Your task to perform on an android device: Open calendar and show me the second week of next month Image 0: 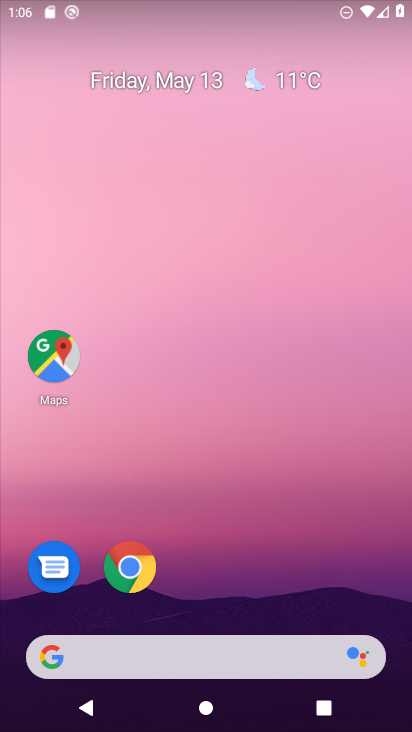
Step 0: drag from (228, 607) to (210, 8)
Your task to perform on an android device: Open calendar and show me the second week of next month Image 1: 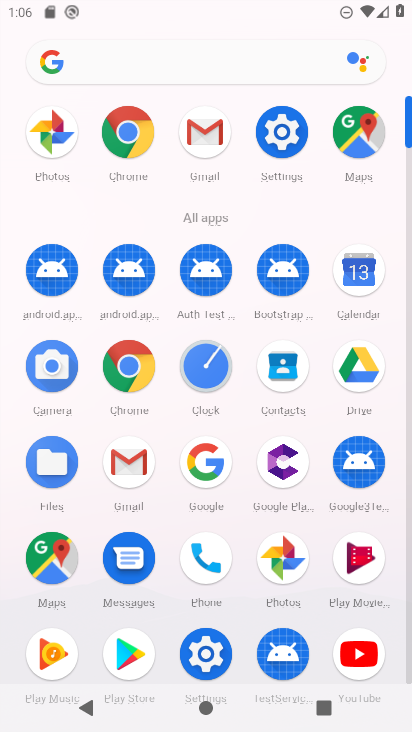
Step 1: click (358, 268)
Your task to perform on an android device: Open calendar and show me the second week of next month Image 2: 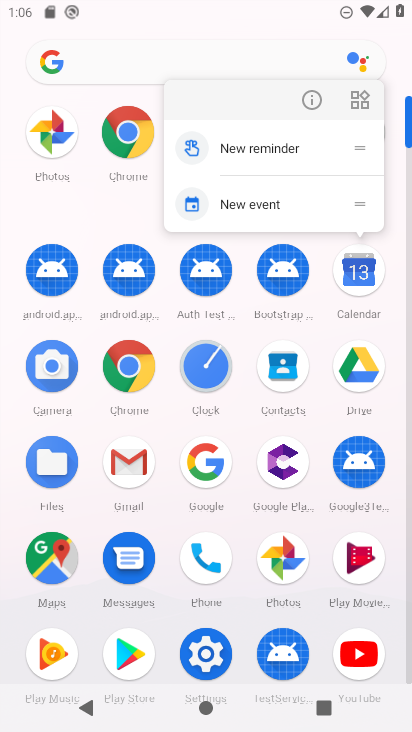
Step 2: click (357, 270)
Your task to perform on an android device: Open calendar and show me the second week of next month Image 3: 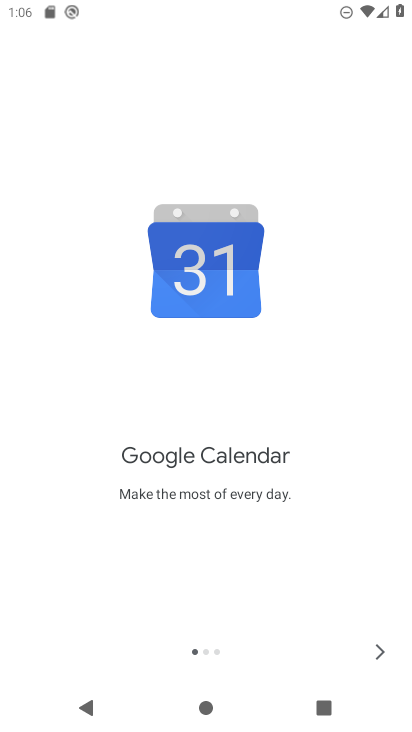
Step 3: click (376, 649)
Your task to perform on an android device: Open calendar and show me the second week of next month Image 4: 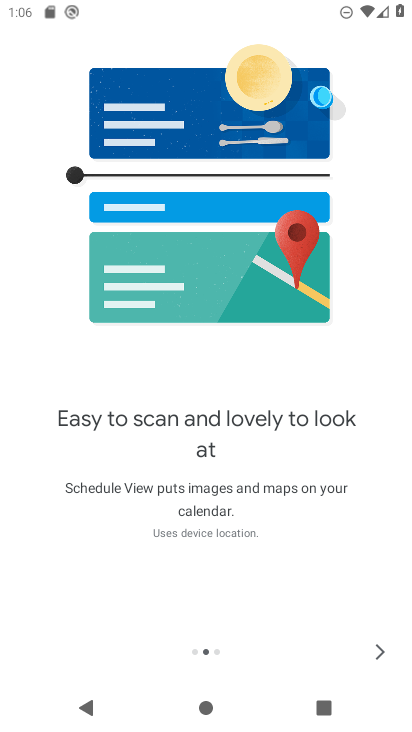
Step 4: click (376, 649)
Your task to perform on an android device: Open calendar and show me the second week of next month Image 5: 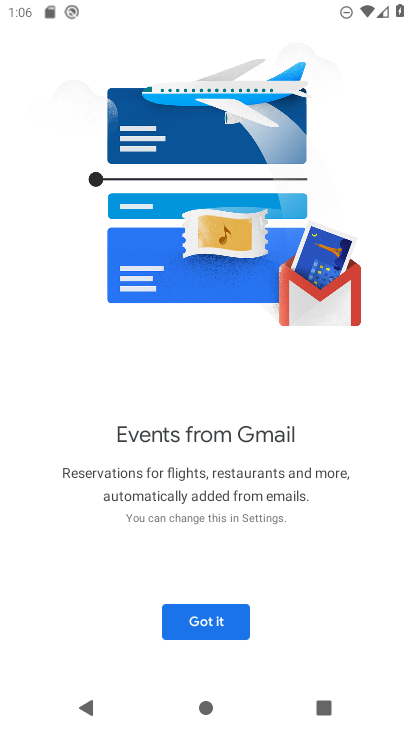
Step 5: click (208, 619)
Your task to perform on an android device: Open calendar and show me the second week of next month Image 6: 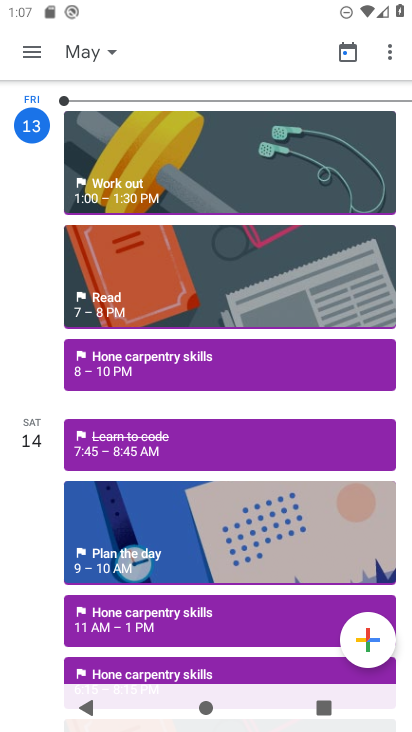
Step 6: click (27, 54)
Your task to perform on an android device: Open calendar and show me the second week of next month Image 7: 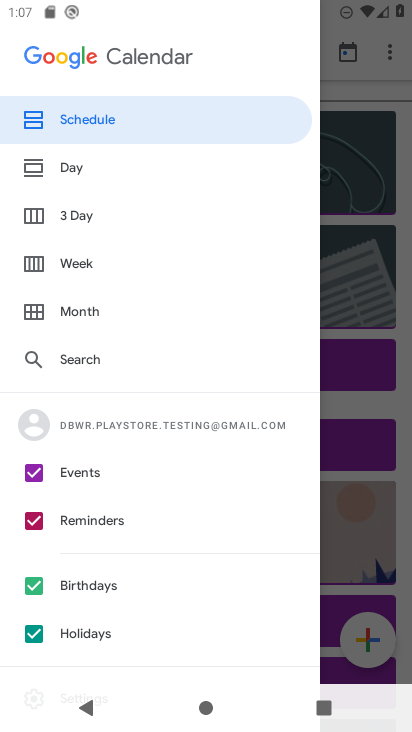
Step 7: click (50, 259)
Your task to perform on an android device: Open calendar and show me the second week of next month Image 8: 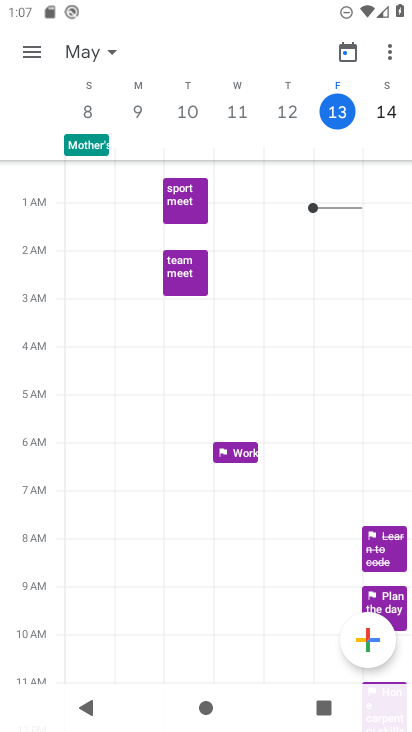
Step 8: drag from (383, 118) to (9, 127)
Your task to perform on an android device: Open calendar and show me the second week of next month Image 9: 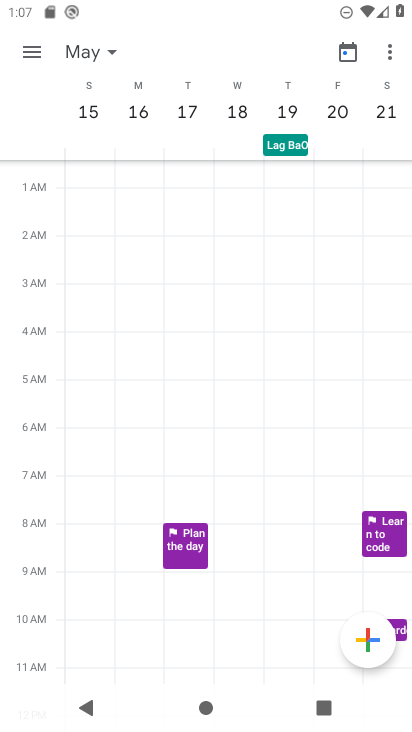
Step 9: drag from (386, 118) to (66, 107)
Your task to perform on an android device: Open calendar and show me the second week of next month Image 10: 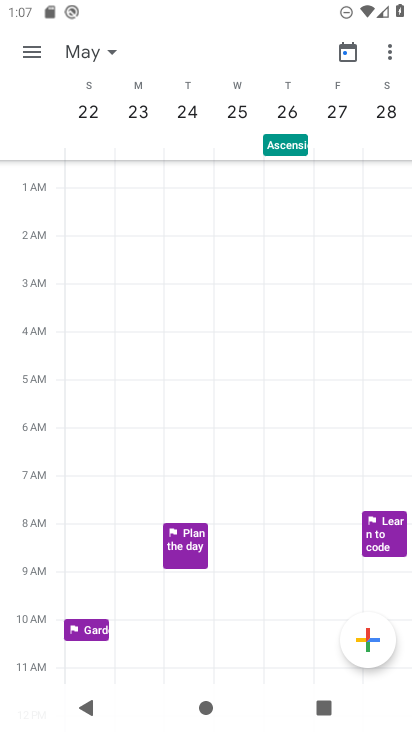
Step 10: drag from (387, 123) to (65, 129)
Your task to perform on an android device: Open calendar and show me the second week of next month Image 11: 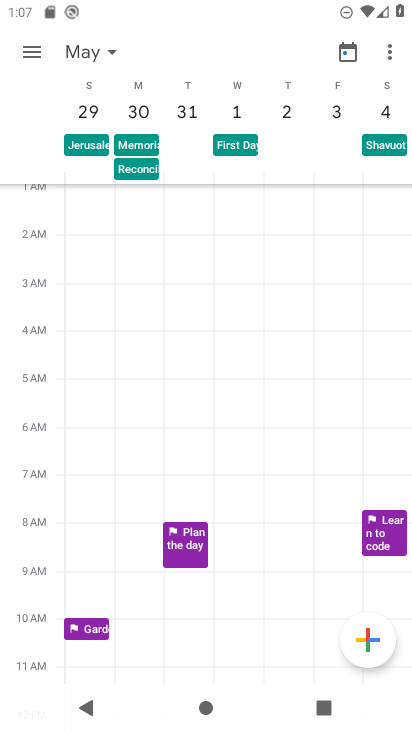
Step 11: drag from (376, 120) to (6, 114)
Your task to perform on an android device: Open calendar and show me the second week of next month Image 12: 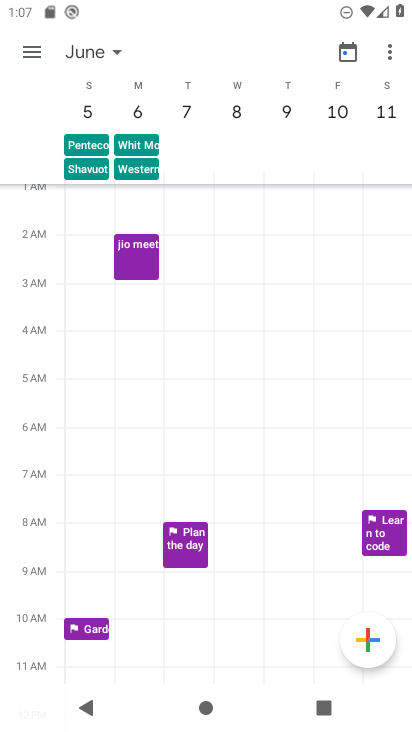
Step 12: click (82, 111)
Your task to perform on an android device: Open calendar and show me the second week of next month Image 13: 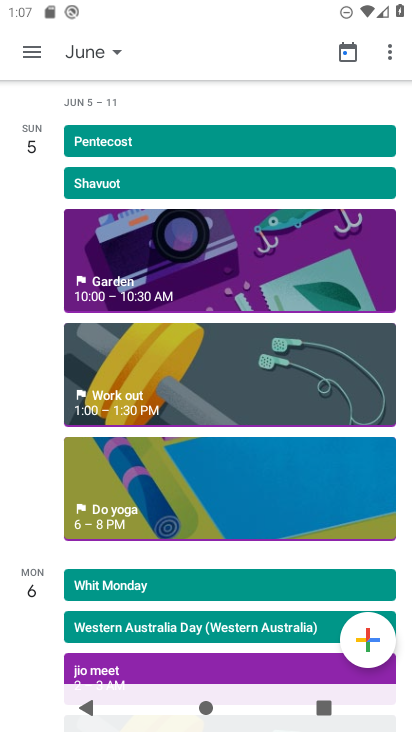
Step 13: task complete